Your task to perform on an android device: check android version Image 0: 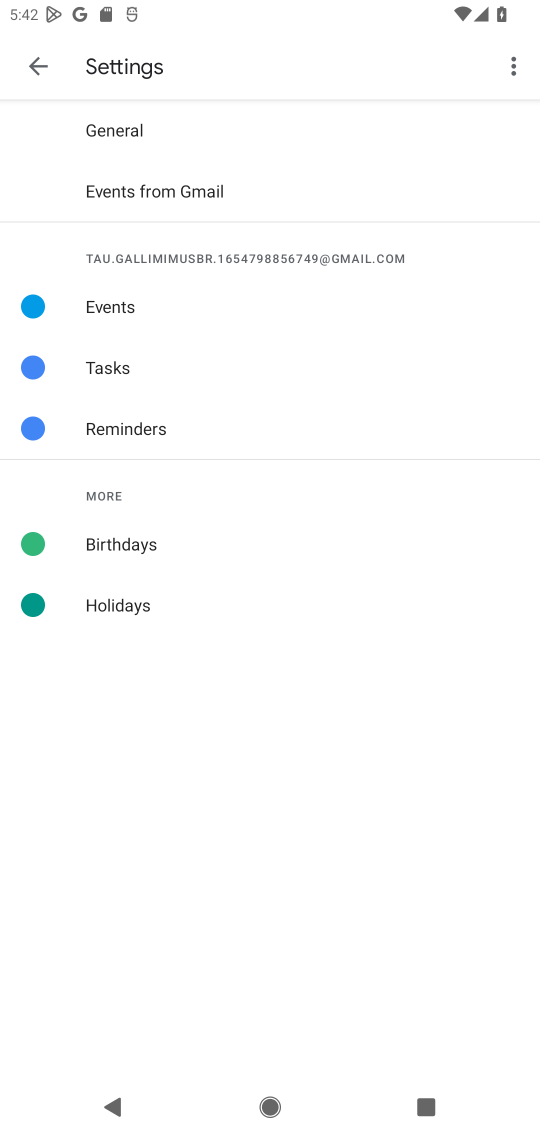
Step 0: press home button
Your task to perform on an android device: check android version Image 1: 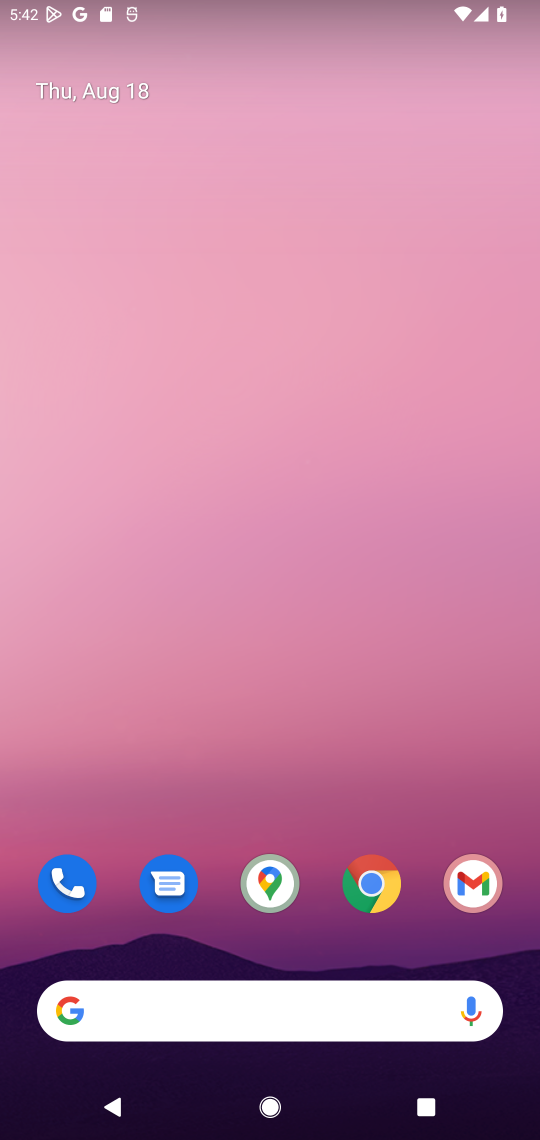
Step 1: drag from (328, 935) to (213, 0)
Your task to perform on an android device: check android version Image 2: 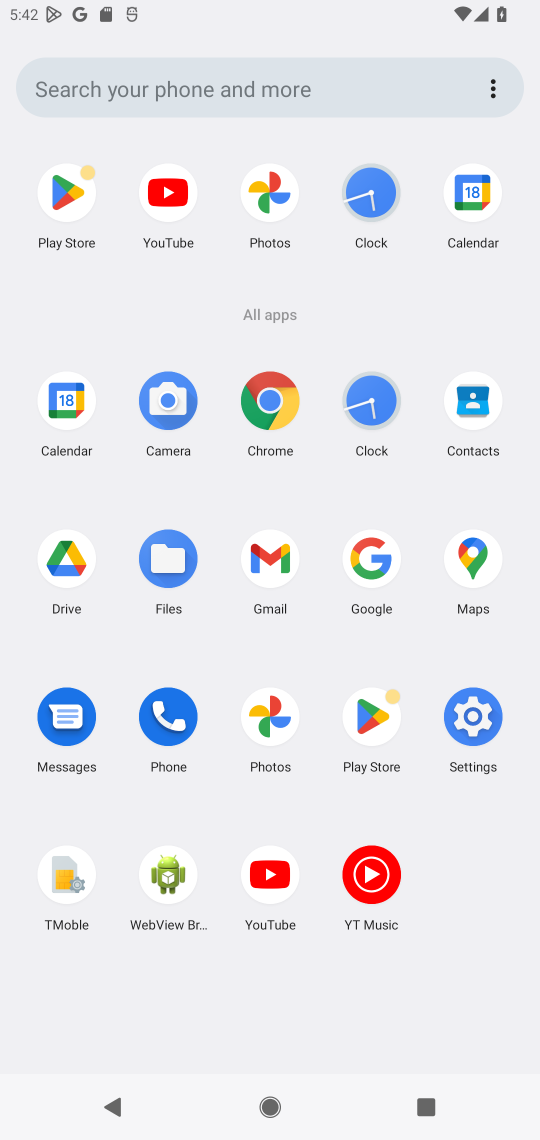
Step 2: click (473, 723)
Your task to perform on an android device: check android version Image 3: 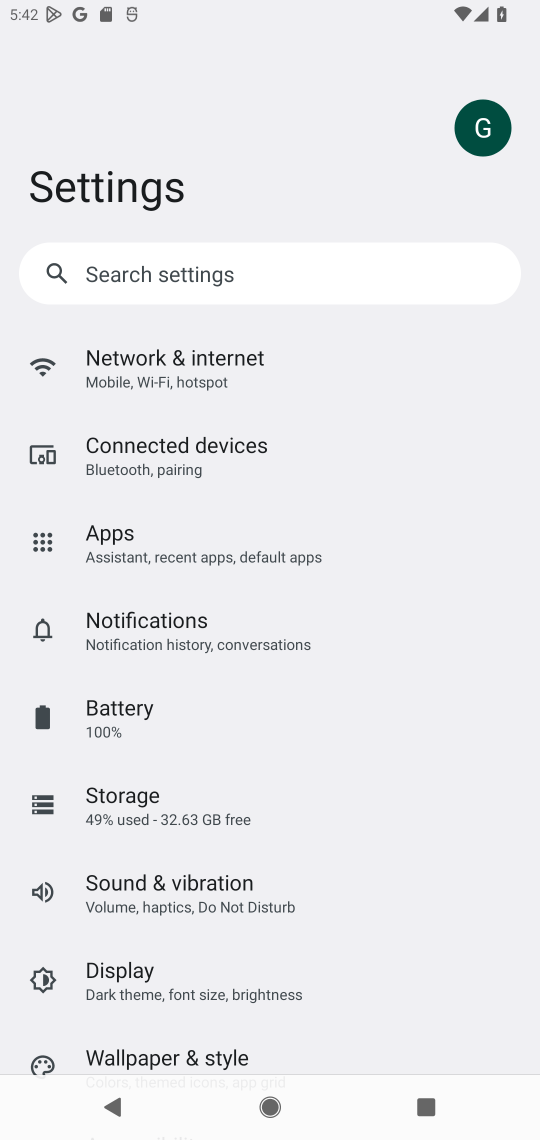
Step 3: drag from (344, 874) to (259, 146)
Your task to perform on an android device: check android version Image 4: 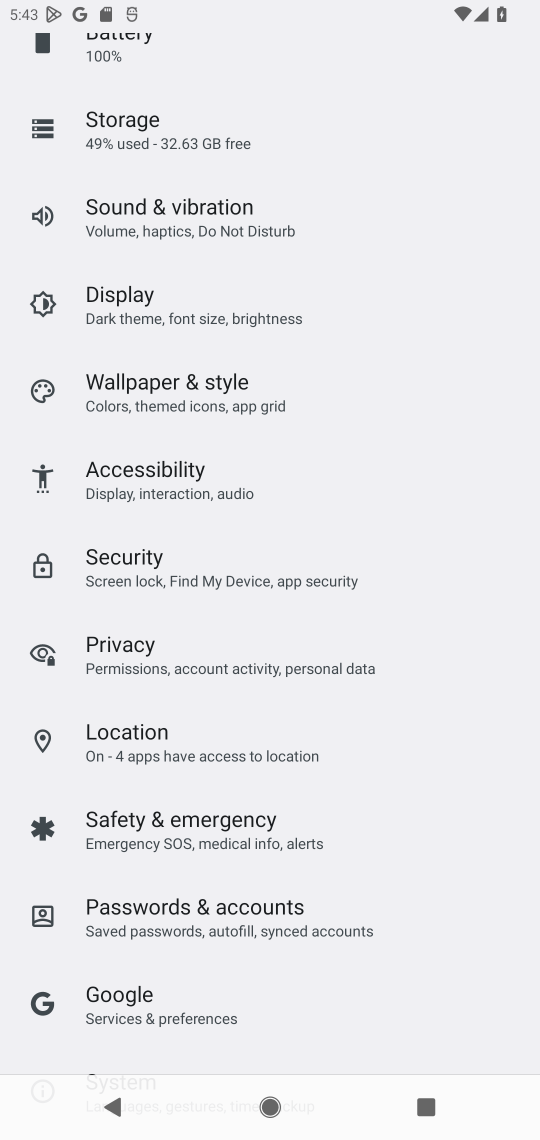
Step 4: drag from (120, 945) to (100, 141)
Your task to perform on an android device: check android version Image 5: 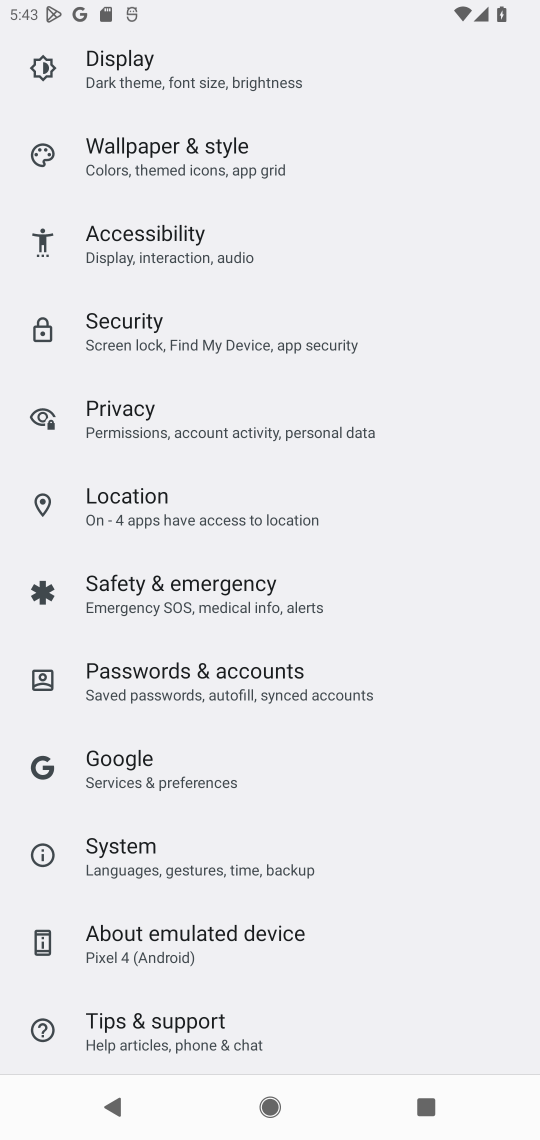
Step 5: click (175, 934)
Your task to perform on an android device: check android version Image 6: 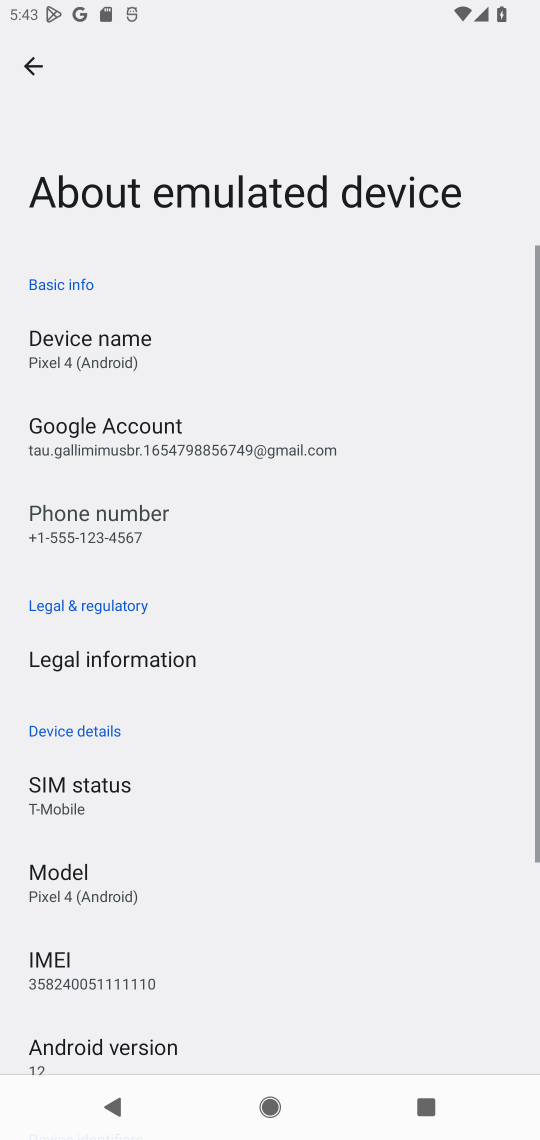
Step 6: drag from (175, 923) to (146, 216)
Your task to perform on an android device: check android version Image 7: 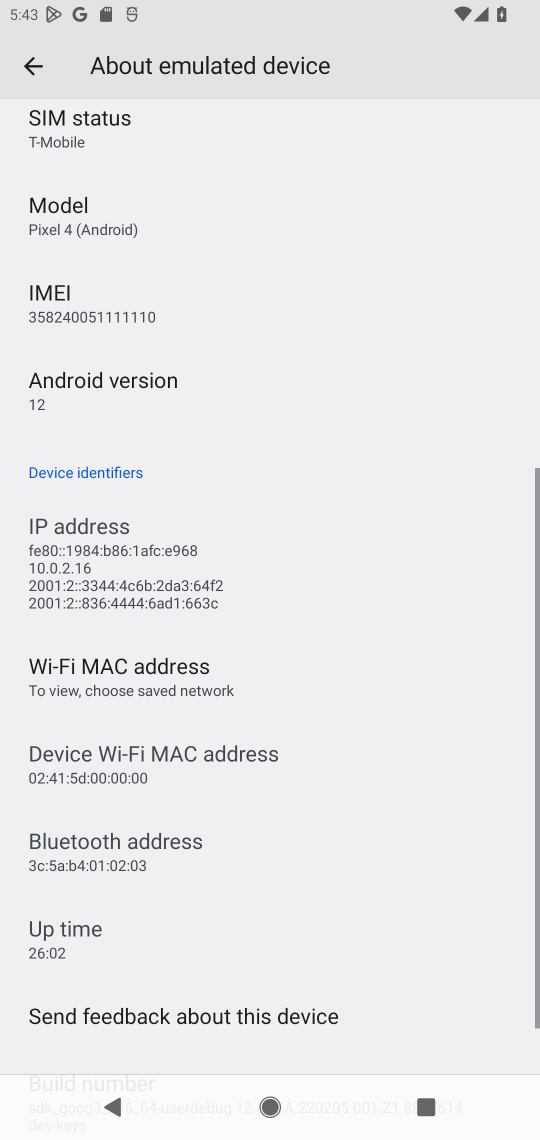
Step 7: click (96, 377)
Your task to perform on an android device: check android version Image 8: 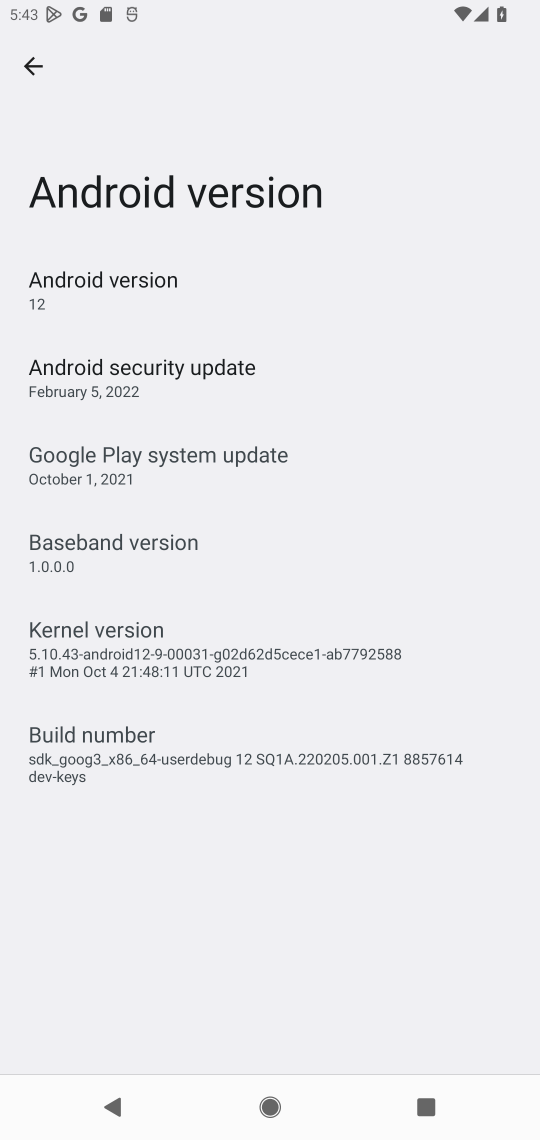
Step 8: task complete